Your task to perform on an android device: open app "McDonald's" Image 0: 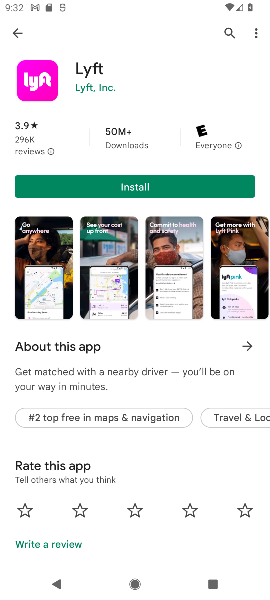
Step 0: press home button
Your task to perform on an android device: open app "McDonald's" Image 1: 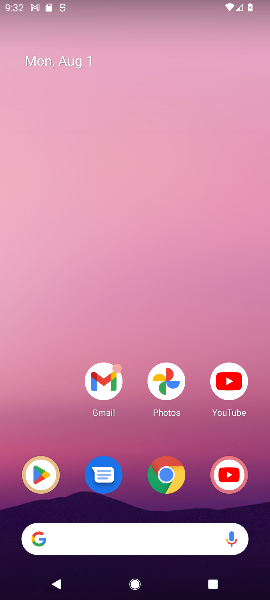
Step 1: click (50, 483)
Your task to perform on an android device: open app "McDonald's" Image 2: 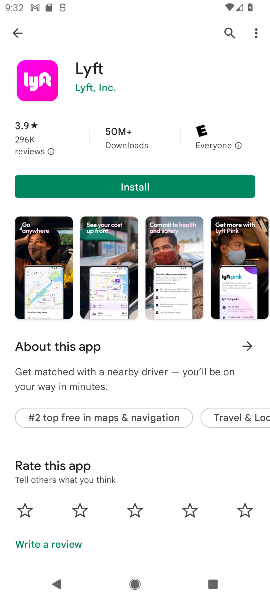
Step 2: click (17, 27)
Your task to perform on an android device: open app "McDonald's" Image 3: 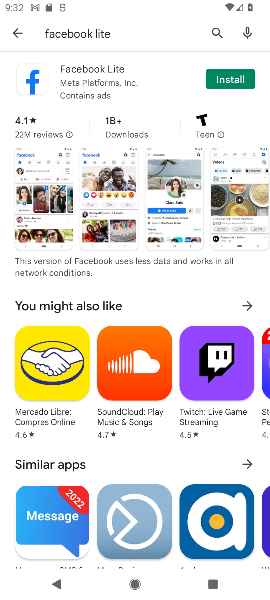
Step 3: click (19, 33)
Your task to perform on an android device: open app "McDonald's" Image 4: 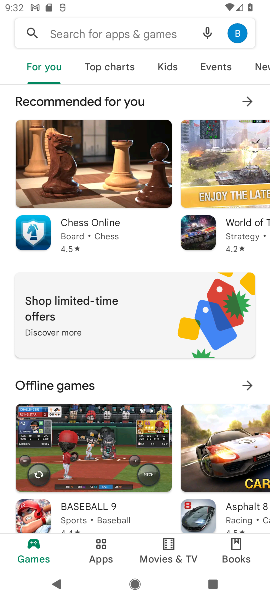
Step 4: click (56, 40)
Your task to perform on an android device: open app "McDonald's" Image 5: 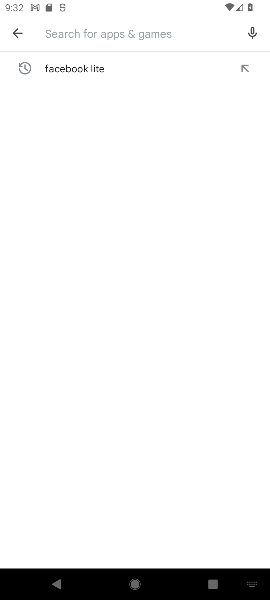
Step 5: type "McDonald's"
Your task to perform on an android device: open app "McDonald's" Image 6: 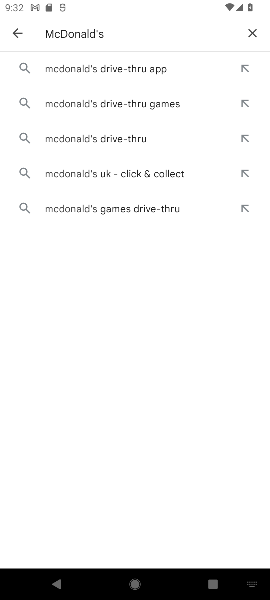
Step 6: click (69, 71)
Your task to perform on an android device: open app "McDonald's" Image 7: 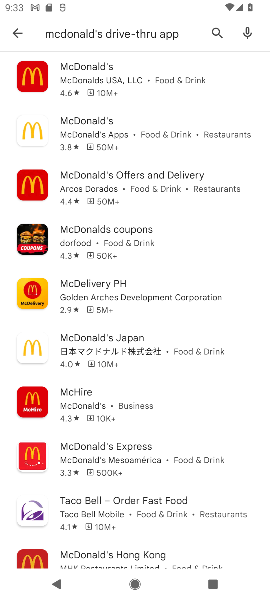
Step 7: click (71, 71)
Your task to perform on an android device: open app "McDonald's" Image 8: 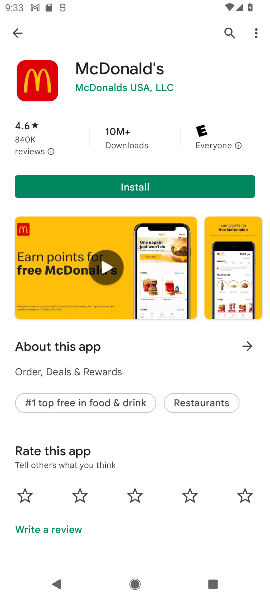
Step 8: click (83, 189)
Your task to perform on an android device: open app "McDonald's" Image 9: 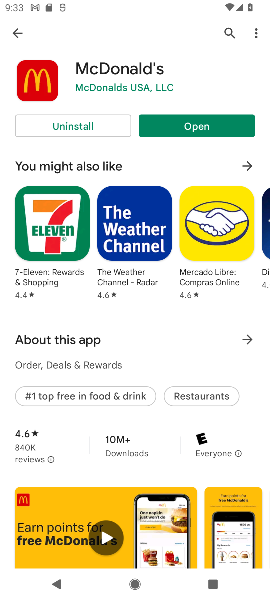
Step 9: click (238, 129)
Your task to perform on an android device: open app "McDonald's" Image 10: 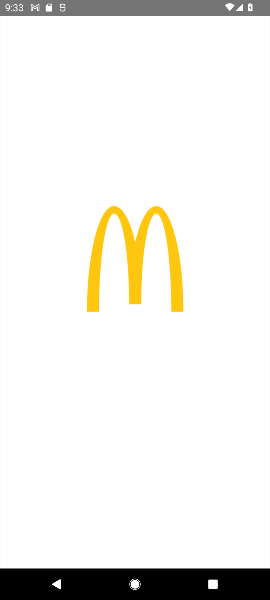
Step 10: task complete